Your task to perform on an android device: turn pop-ups on in chrome Image 0: 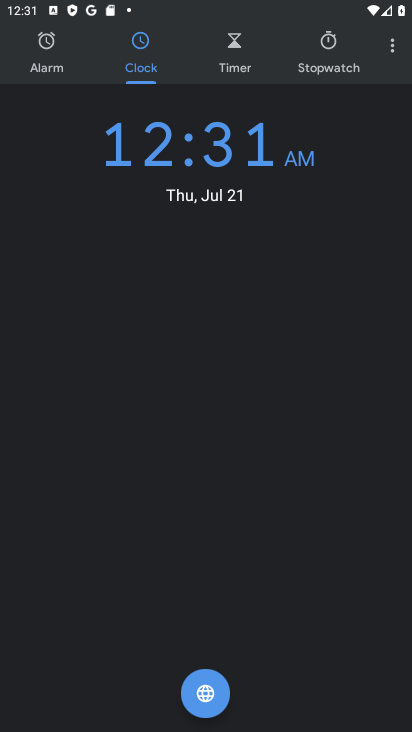
Step 0: press home button
Your task to perform on an android device: turn pop-ups on in chrome Image 1: 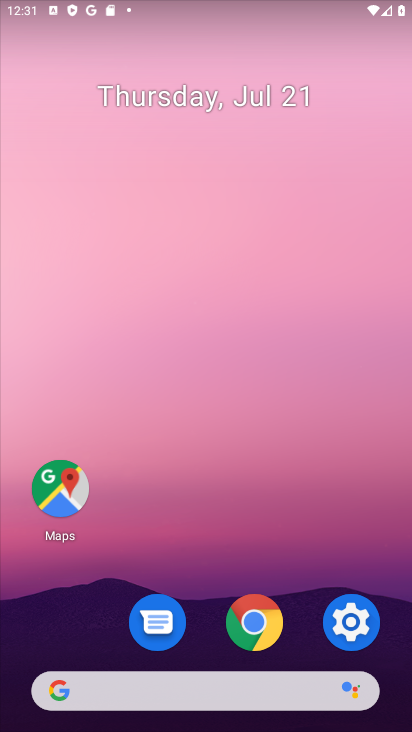
Step 1: click (248, 617)
Your task to perform on an android device: turn pop-ups on in chrome Image 2: 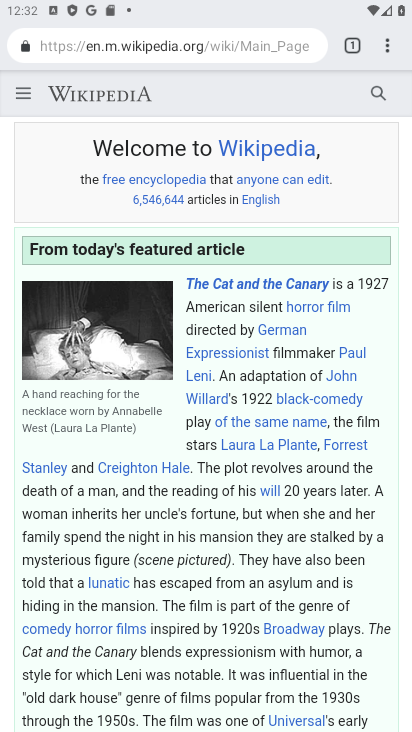
Step 2: click (383, 52)
Your task to perform on an android device: turn pop-ups on in chrome Image 3: 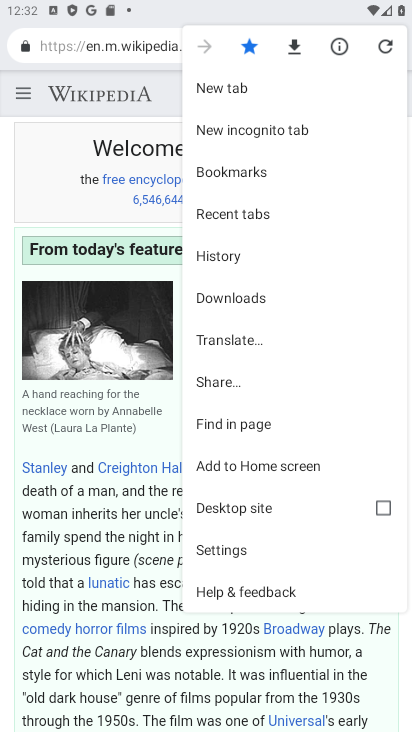
Step 3: click (230, 546)
Your task to perform on an android device: turn pop-ups on in chrome Image 4: 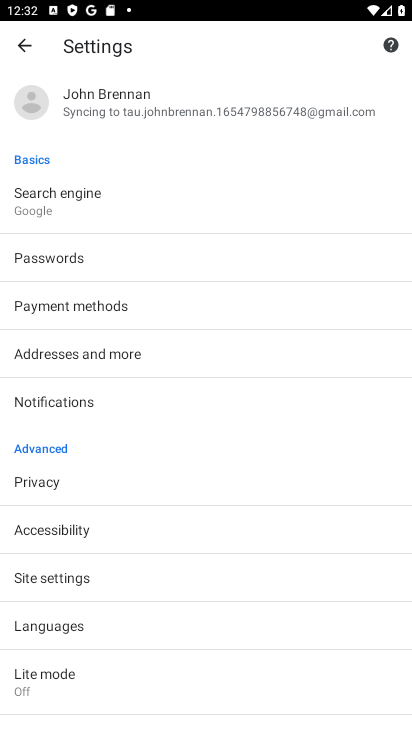
Step 4: click (67, 578)
Your task to perform on an android device: turn pop-ups on in chrome Image 5: 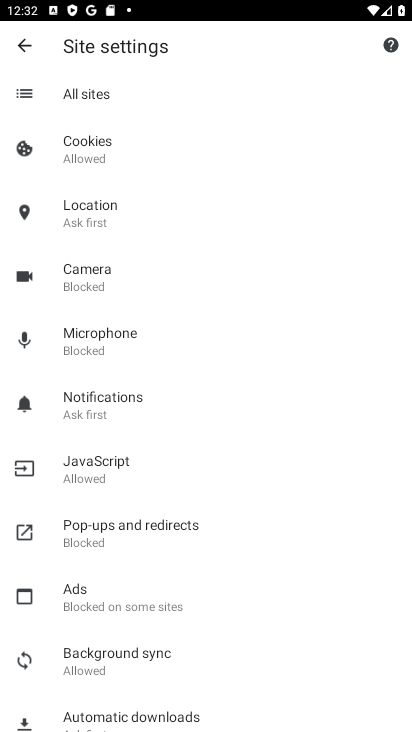
Step 5: click (93, 527)
Your task to perform on an android device: turn pop-ups on in chrome Image 6: 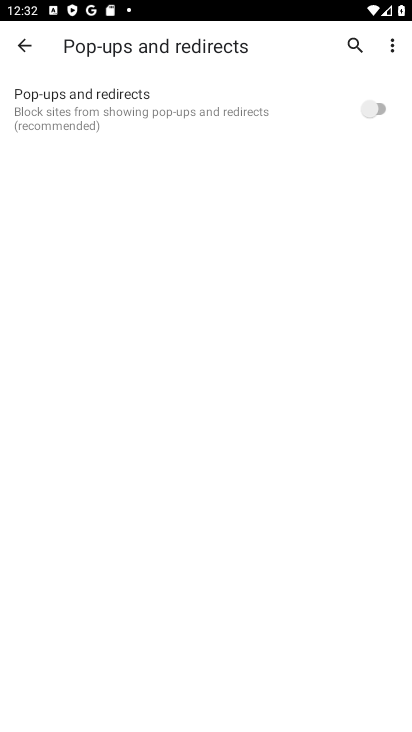
Step 6: click (350, 108)
Your task to perform on an android device: turn pop-ups on in chrome Image 7: 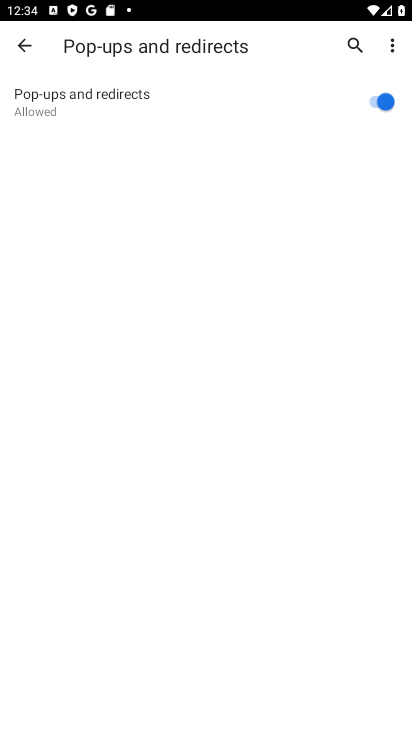
Step 7: task complete